Your task to perform on an android device: turn on data saver in the chrome app Image 0: 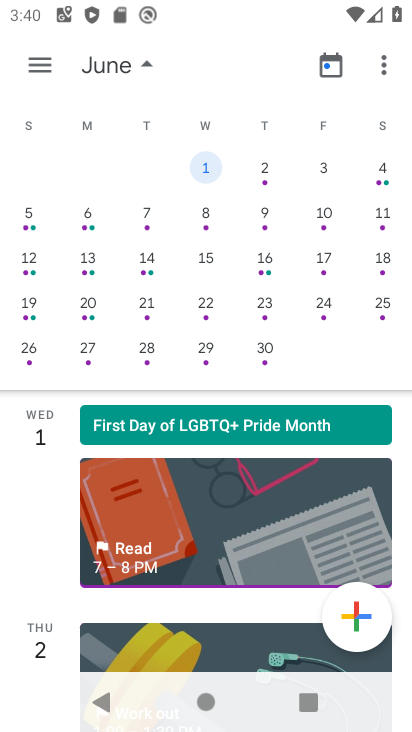
Step 0: press home button
Your task to perform on an android device: turn on data saver in the chrome app Image 1: 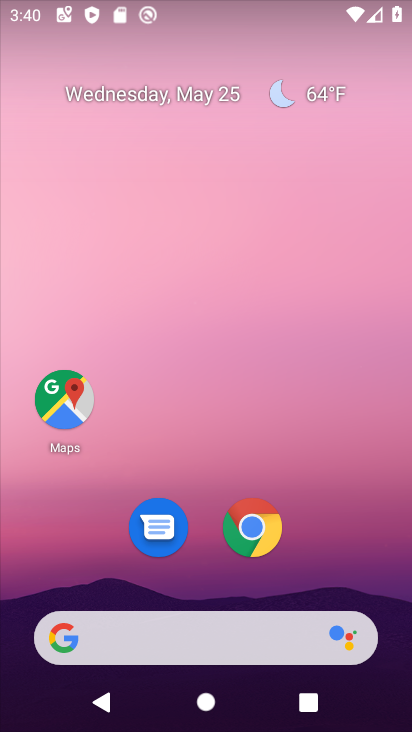
Step 1: click (248, 527)
Your task to perform on an android device: turn on data saver in the chrome app Image 2: 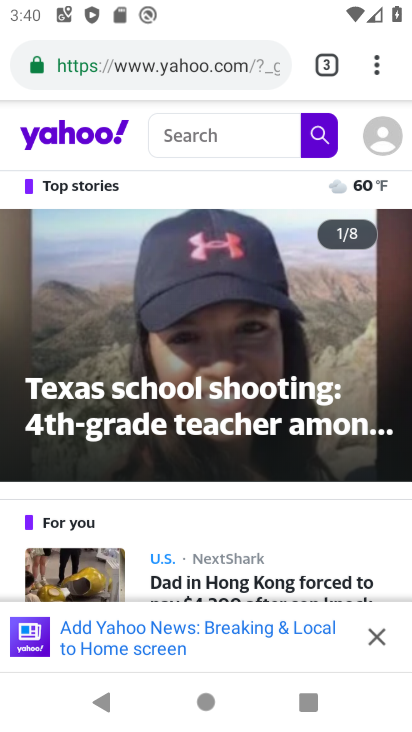
Step 2: drag from (384, 60) to (159, 583)
Your task to perform on an android device: turn on data saver in the chrome app Image 3: 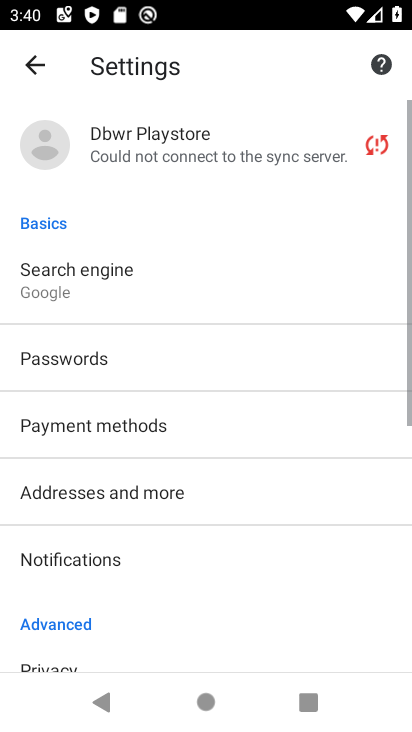
Step 3: drag from (168, 574) to (207, 98)
Your task to perform on an android device: turn on data saver in the chrome app Image 4: 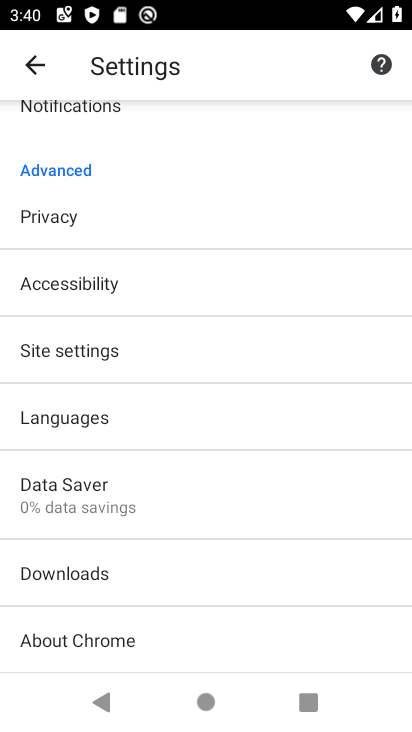
Step 4: click (106, 500)
Your task to perform on an android device: turn on data saver in the chrome app Image 5: 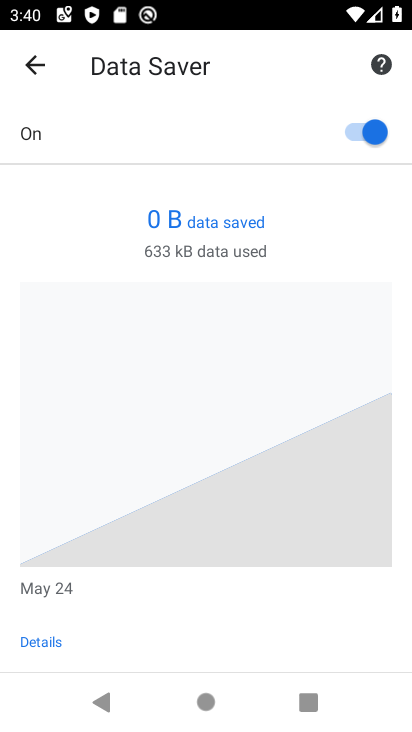
Step 5: task complete